Your task to perform on an android device: visit the assistant section in the google photos Image 0: 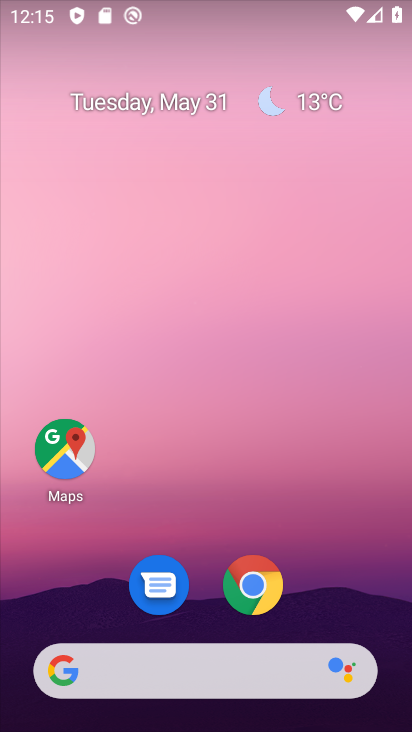
Step 0: drag from (233, 541) to (263, 2)
Your task to perform on an android device: visit the assistant section in the google photos Image 1: 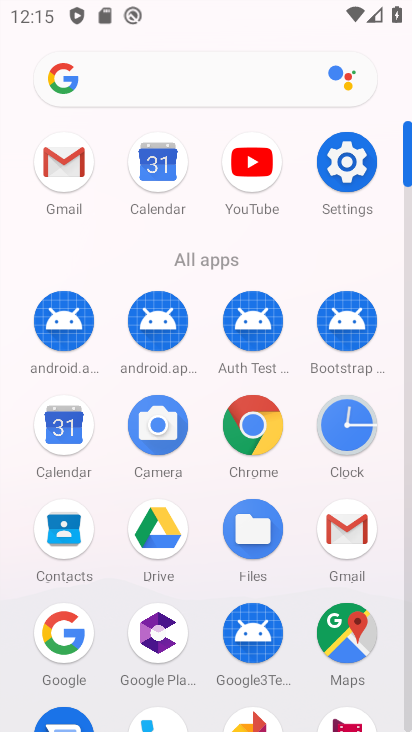
Step 1: drag from (218, 557) to (221, 328)
Your task to perform on an android device: visit the assistant section in the google photos Image 2: 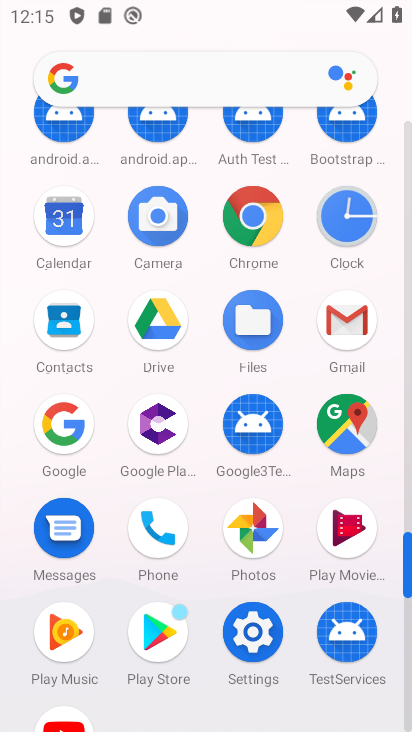
Step 2: click (262, 528)
Your task to perform on an android device: visit the assistant section in the google photos Image 3: 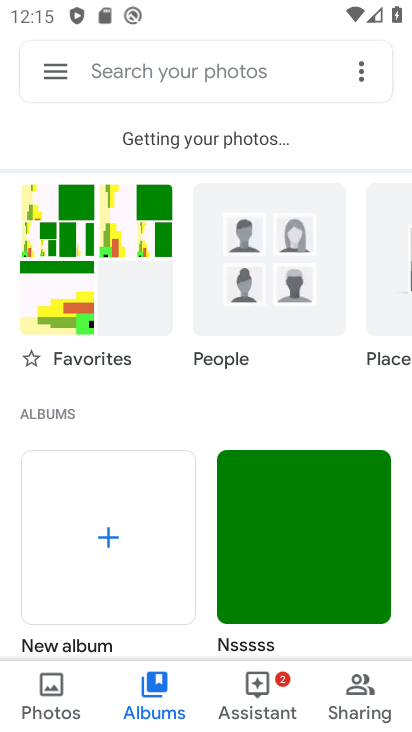
Step 3: click (250, 692)
Your task to perform on an android device: visit the assistant section in the google photos Image 4: 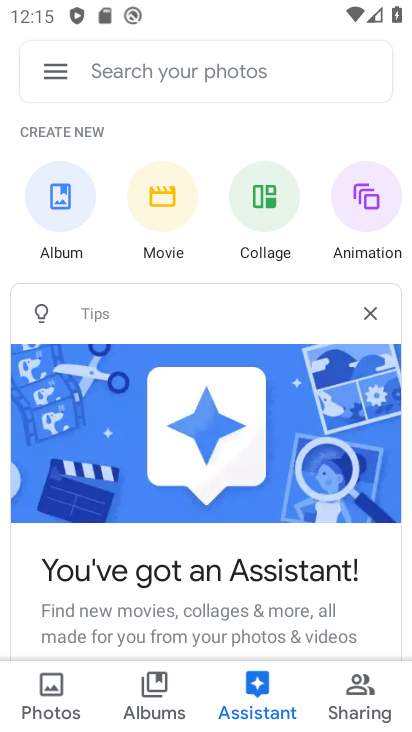
Step 4: task complete